Your task to perform on an android device: stop showing notifications on the lock screen Image 0: 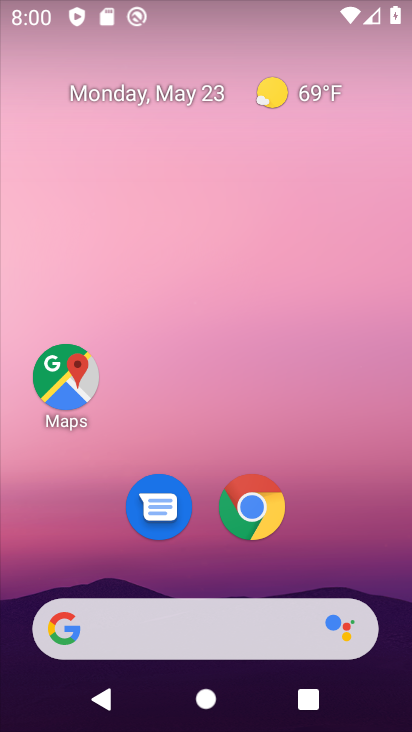
Step 0: drag from (370, 593) to (408, 0)
Your task to perform on an android device: stop showing notifications on the lock screen Image 1: 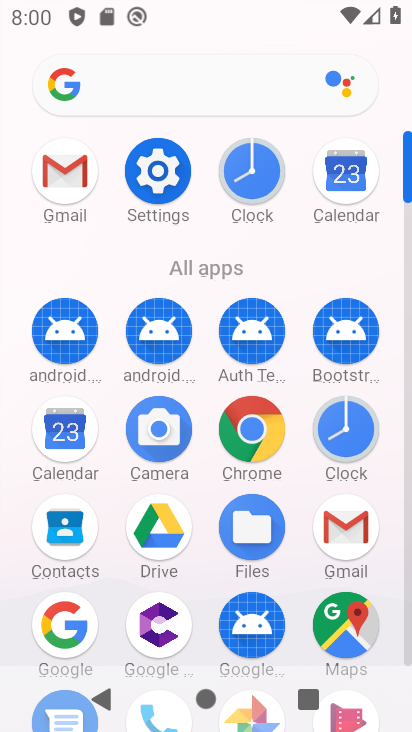
Step 1: click (159, 182)
Your task to perform on an android device: stop showing notifications on the lock screen Image 2: 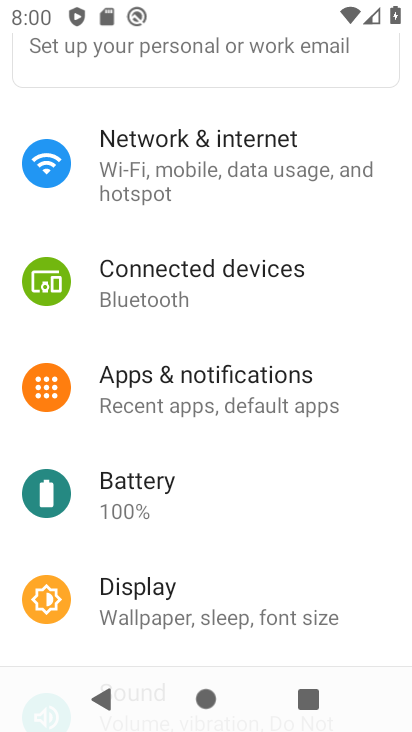
Step 2: click (154, 394)
Your task to perform on an android device: stop showing notifications on the lock screen Image 3: 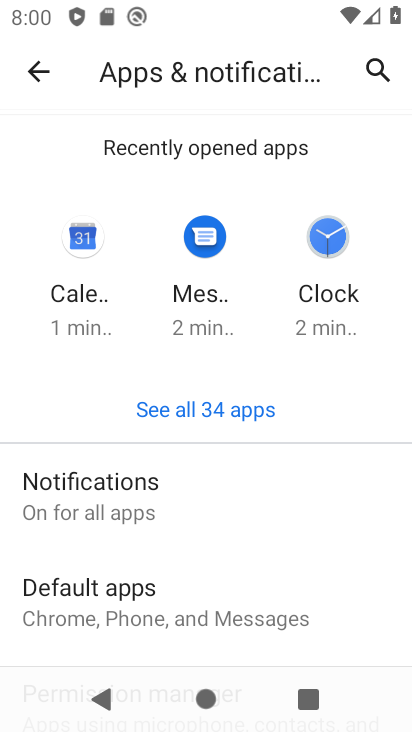
Step 3: click (103, 499)
Your task to perform on an android device: stop showing notifications on the lock screen Image 4: 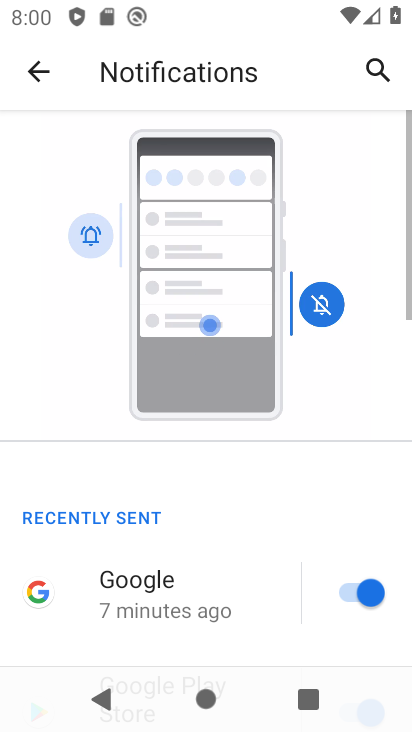
Step 4: drag from (183, 582) to (164, 146)
Your task to perform on an android device: stop showing notifications on the lock screen Image 5: 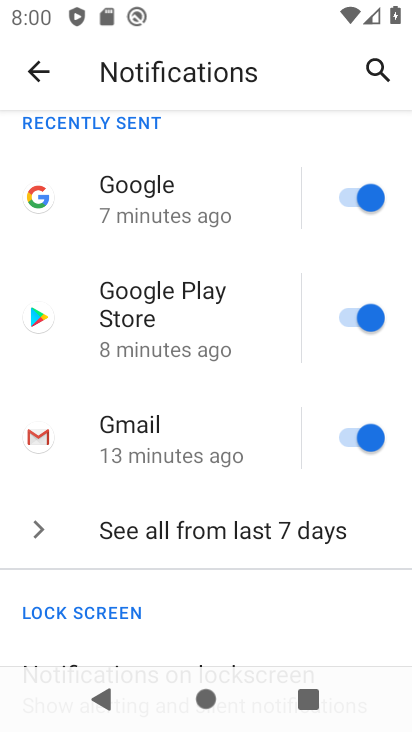
Step 5: drag from (158, 530) to (164, 167)
Your task to perform on an android device: stop showing notifications on the lock screen Image 6: 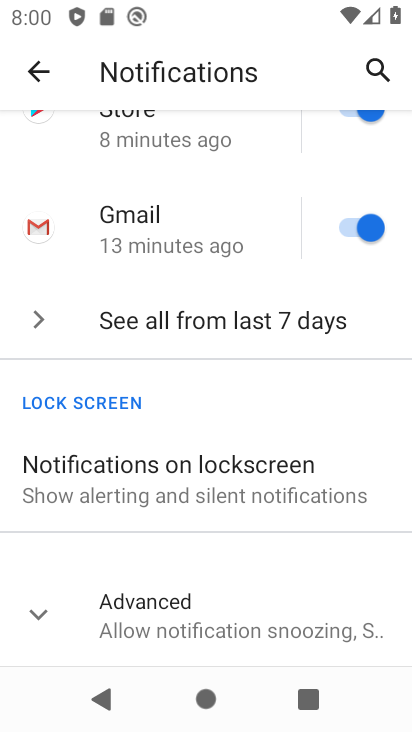
Step 6: click (129, 481)
Your task to perform on an android device: stop showing notifications on the lock screen Image 7: 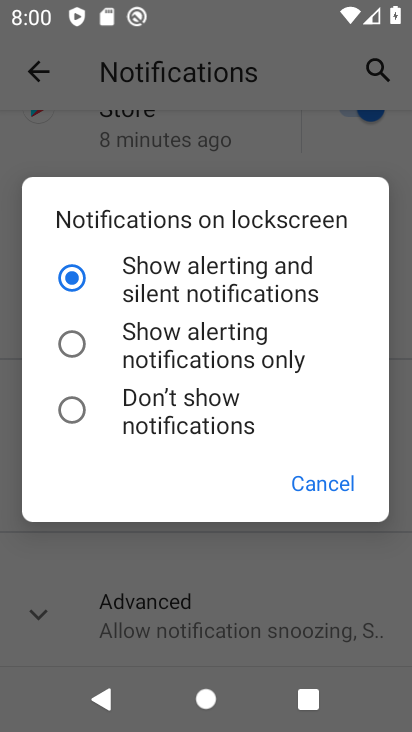
Step 7: click (64, 411)
Your task to perform on an android device: stop showing notifications on the lock screen Image 8: 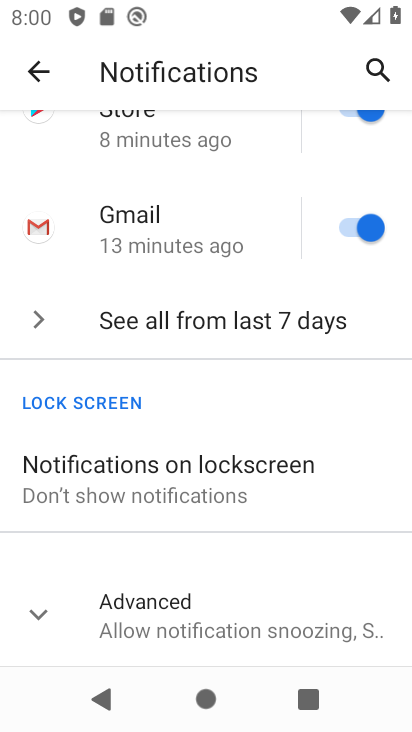
Step 8: task complete